Your task to perform on an android device: toggle improve location accuracy Image 0: 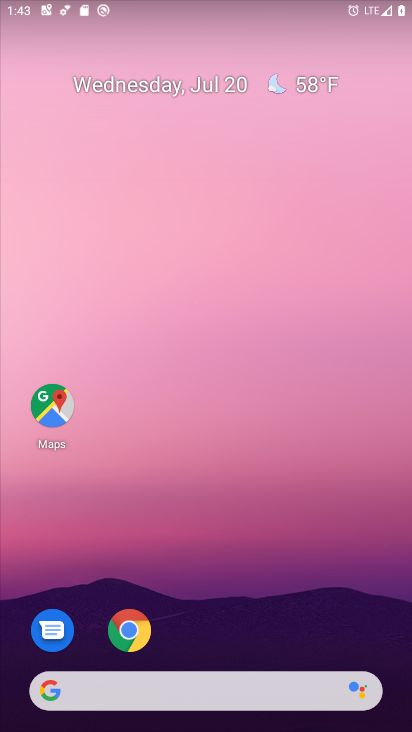
Step 0: press home button
Your task to perform on an android device: toggle improve location accuracy Image 1: 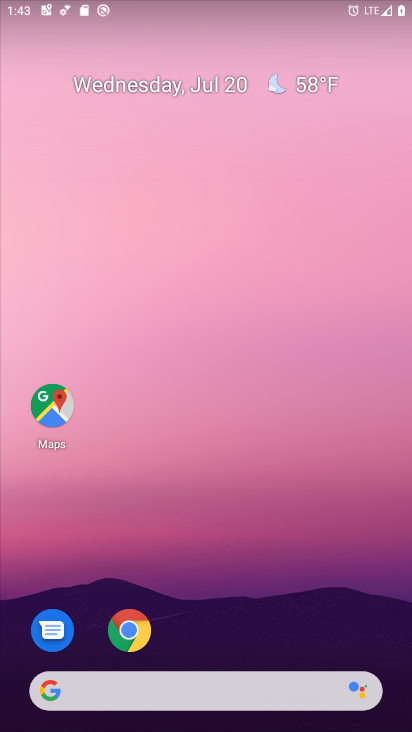
Step 1: drag from (210, 657) to (278, 104)
Your task to perform on an android device: toggle improve location accuracy Image 2: 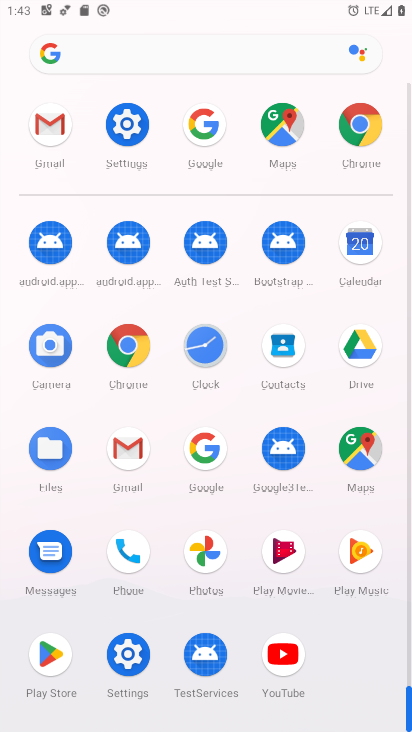
Step 2: click (140, 136)
Your task to perform on an android device: toggle improve location accuracy Image 3: 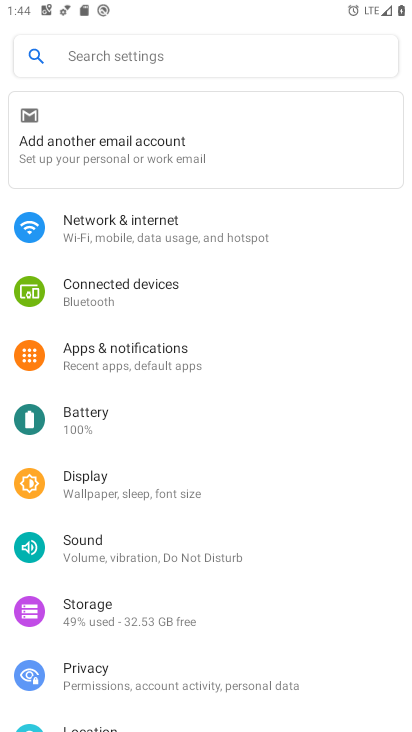
Step 3: drag from (116, 616) to (123, 367)
Your task to perform on an android device: toggle improve location accuracy Image 4: 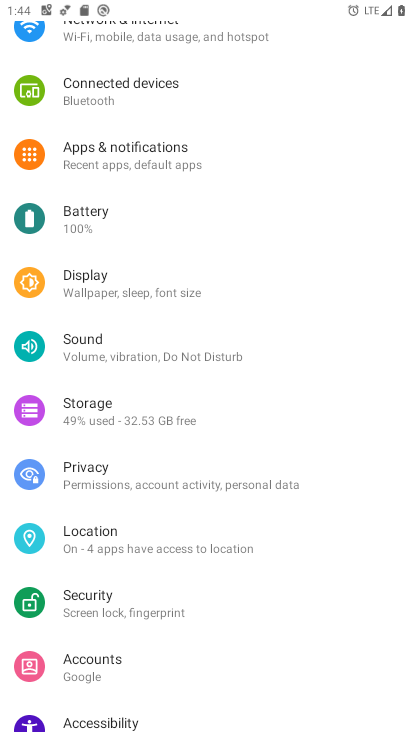
Step 4: click (143, 549)
Your task to perform on an android device: toggle improve location accuracy Image 5: 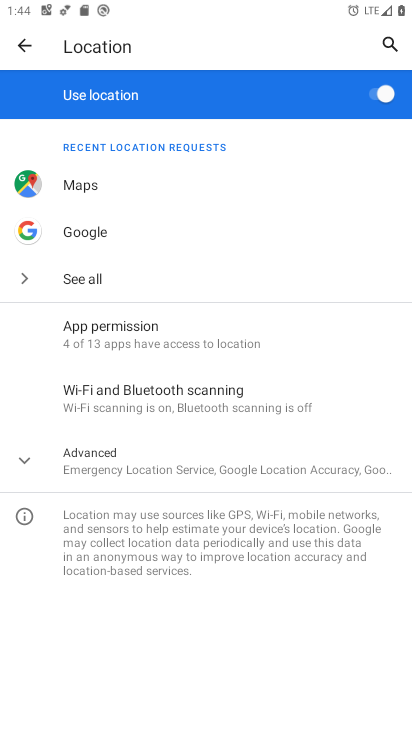
Step 5: click (123, 478)
Your task to perform on an android device: toggle improve location accuracy Image 6: 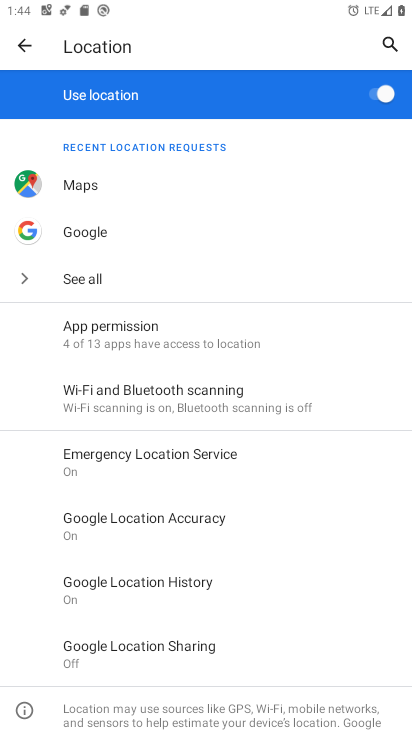
Step 6: click (186, 530)
Your task to perform on an android device: toggle improve location accuracy Image 7: 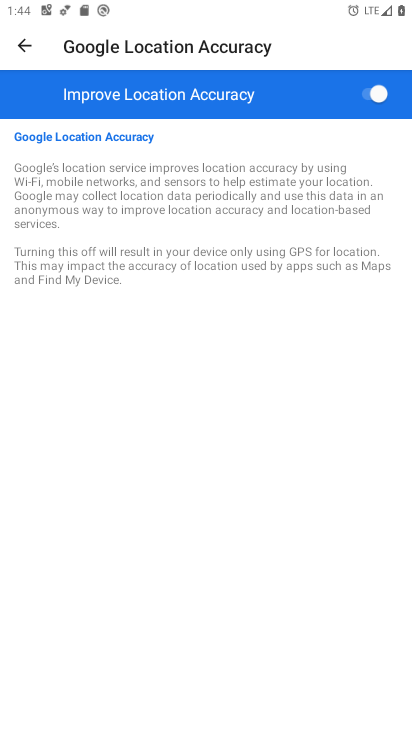
Step 7: click (351, 95)
Your task to perform on an android device: toggle improve location accuracy Image 8: 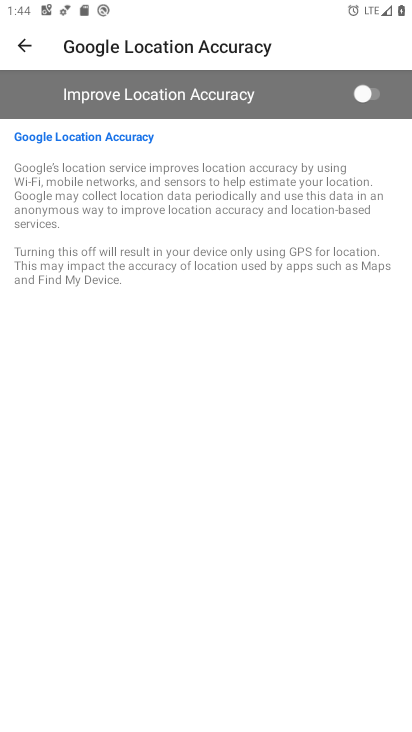
Step 8: task complete